Your task to perform on an android device: delete the emails in spam in the gmail app Image 0: 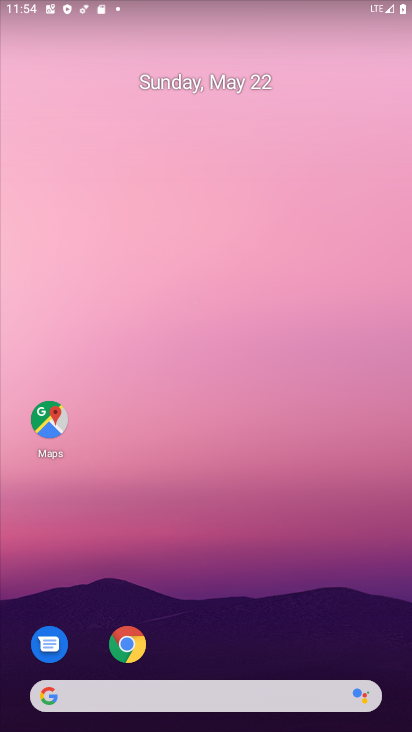
Step 0: drag from (363, 620) to (278, 58)
Your task to perform on an android device: delete the emails in spam in the gmail app Image 1: 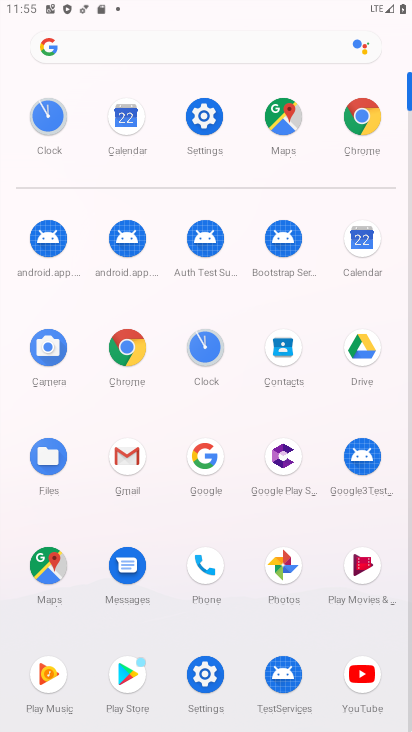
Step 1: click (131, 457)
Your task to perform on an android device: delete the emails in spam in the gmail app Image 2: 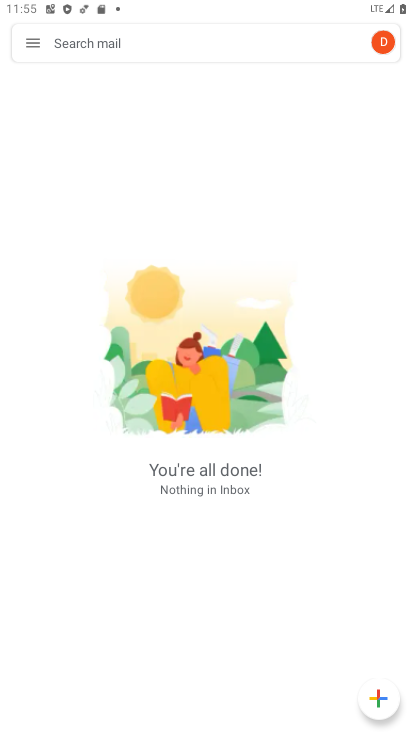
Step 2: click (26, 39)
Your task to perform on an android device: delete the emails in spam in the gmail app Image 3: 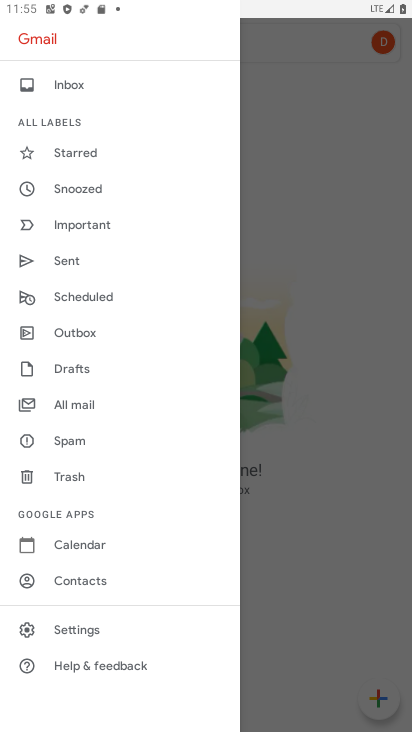
Step 3: click (72, 445)
Your task to perform on an android device: delete the emails in spam in the gmail app Image 4: 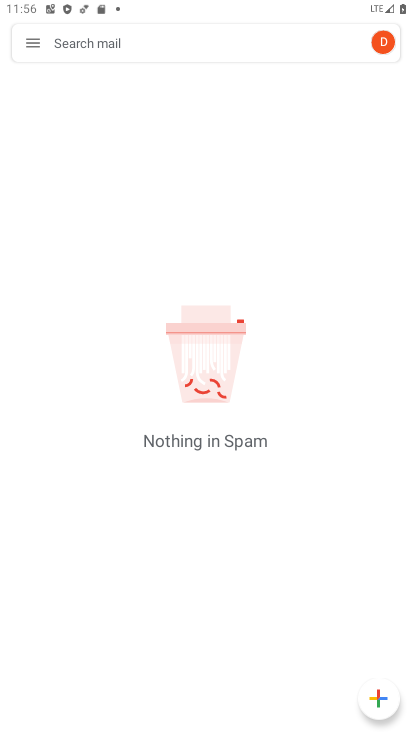
Step 4: task complete